Your task to perform on an android device: Go to Maps Image 0: 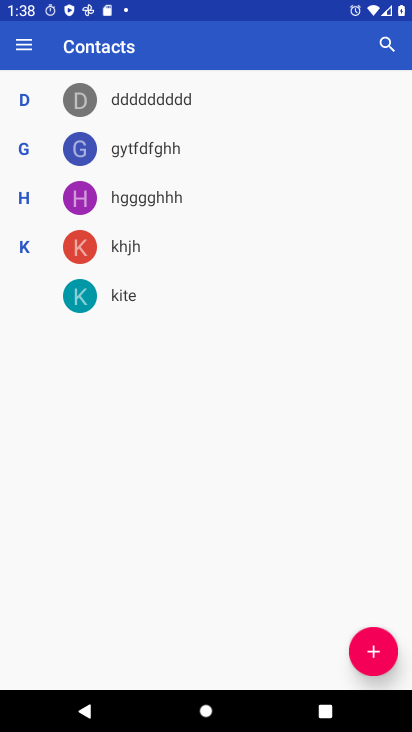
Step 0: press home button
Your task to perform on an android device: Go to Maps Image 1: 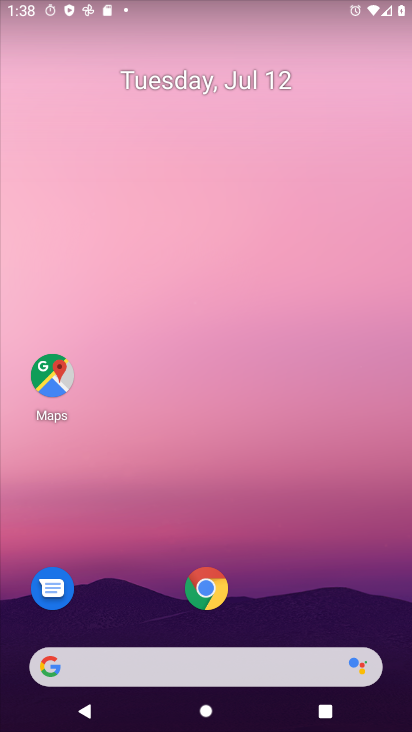
Step 1: click (47, 391)
Your task to perform on an android device: Go to Maps Image 2: 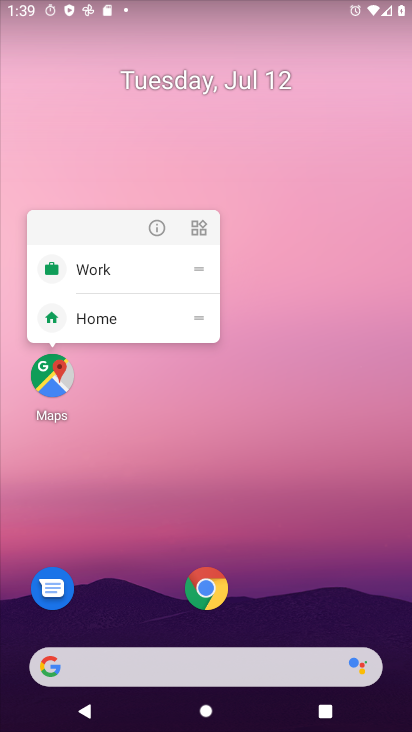
Step 2: click (44, 382)
Your task to perform on an android device: Go to Maps Image 3: 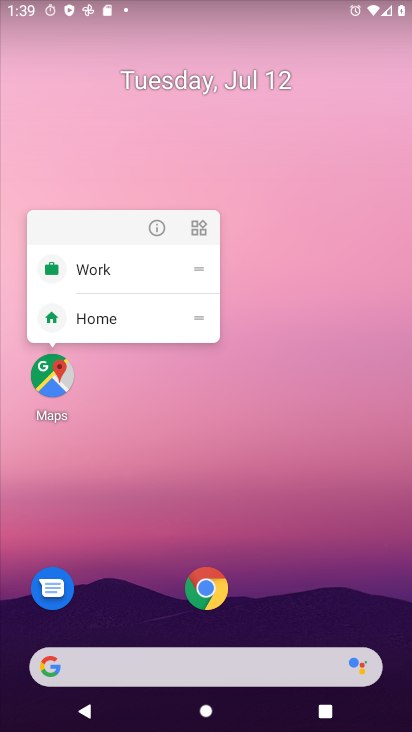
Step 3: click (44, 381)
Your task to perform on an android device: Go to Maps Image 4: 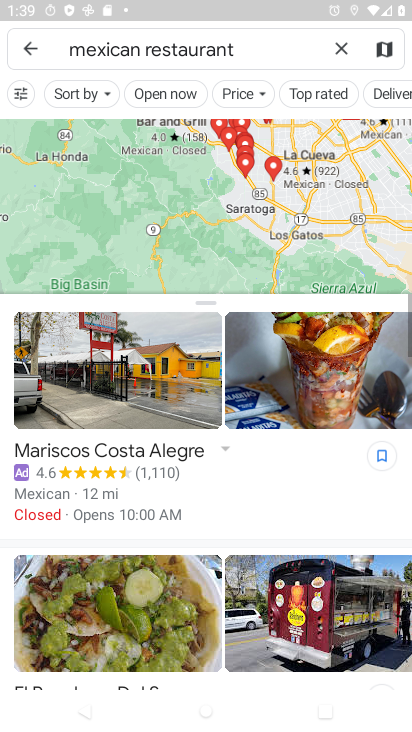
Step 4: click (29, 44)
Your task to perform on an android device: Go to Maps Image 5: 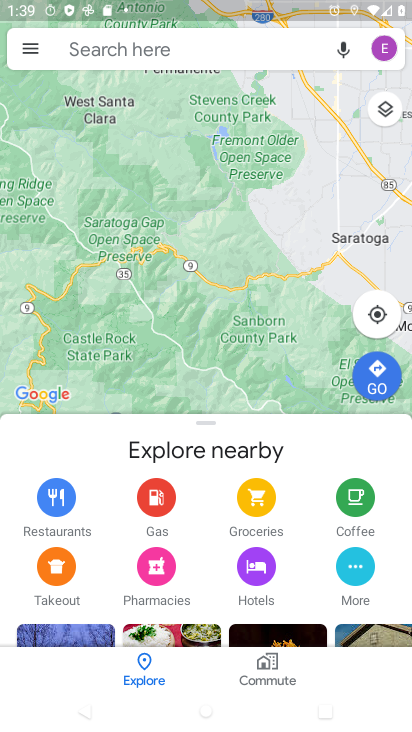
Step 5: task complete